Your task to perform on an android device: check the backup settings in the google photos Image 0: 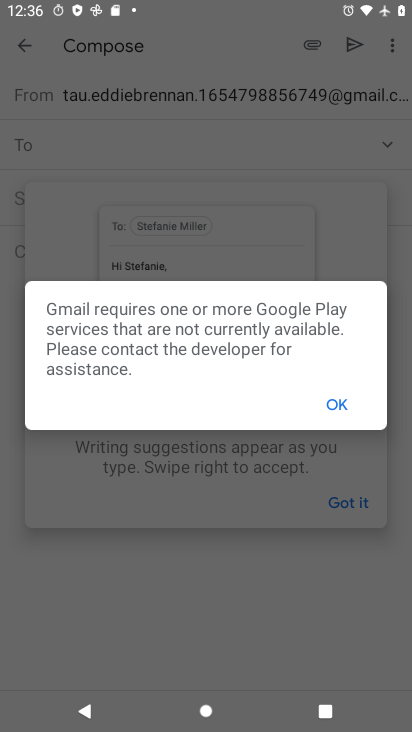
Step 0: press home button
Your task to perform on an android device: check the backup settings in the google photos Image 1: 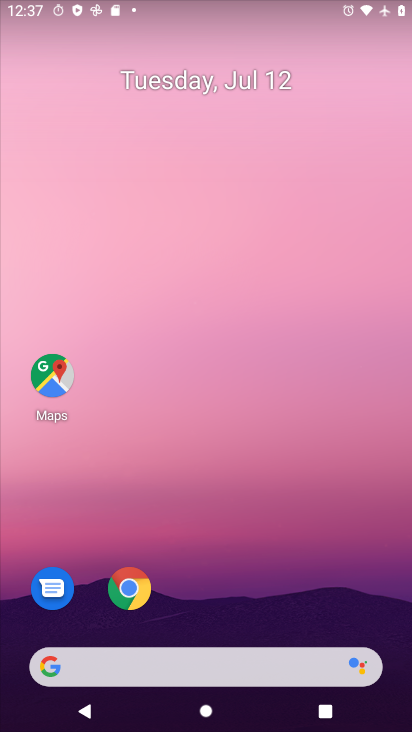
Step 1: drag from (180, 654) to (311, 112)
Your task to perform on an android device: check the backup settings in the google photos Image 2: 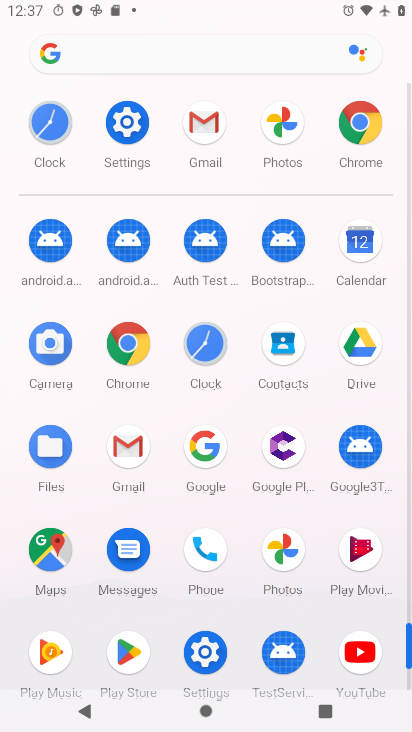
Step 2: click (283, 554)
Your task to perform on an android device: check the backup settings in the google photos Image 3: 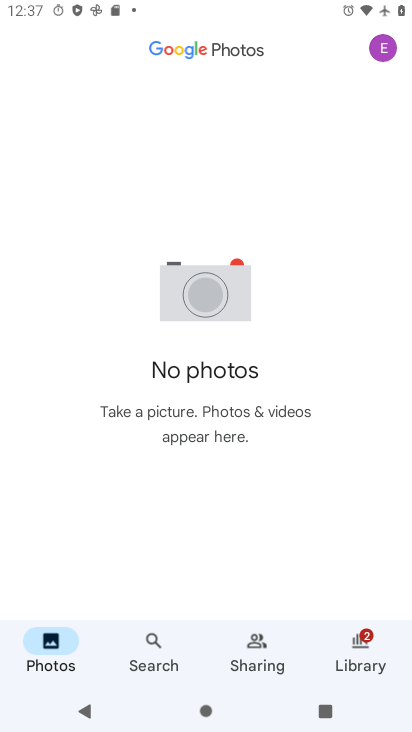
Step 3: click (390, 43)
Your task to perform on an android device: check the backup settings in the google photos Image 4: 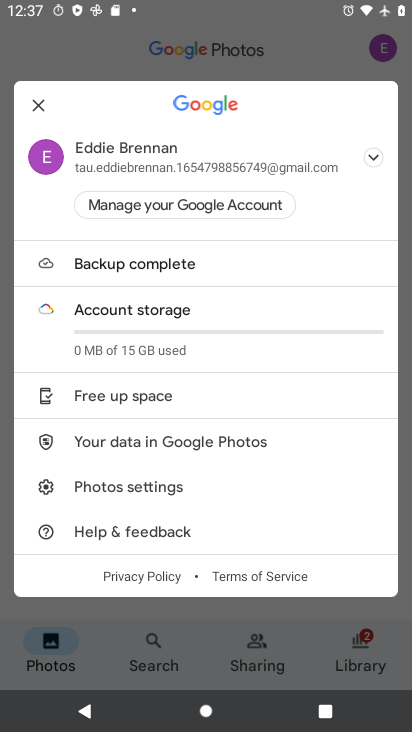
Step 4: click (133, 483)
Your task to perform on an android device: check the backup settings in the google photos Image 5: 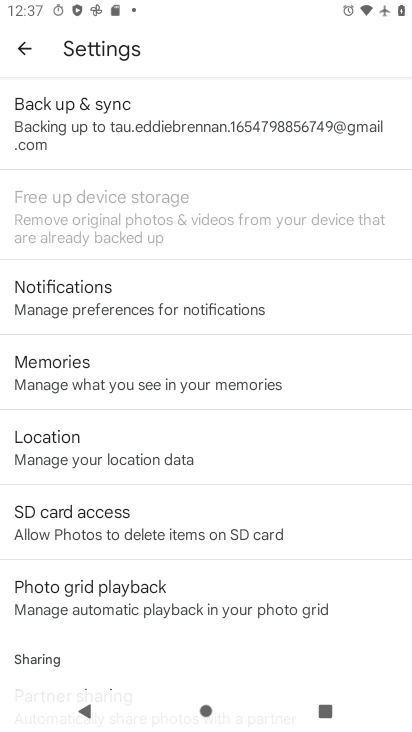
Step 5: click (208, 127)
Your task to perform on an android device: check the backup settings in the google photos Image 6: 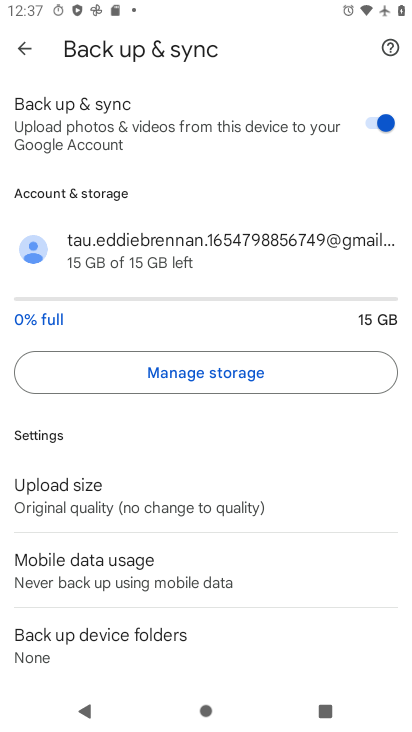
Step 6: task complete